Your task to perform on an android device: turn off improve location accuracy Image 0: 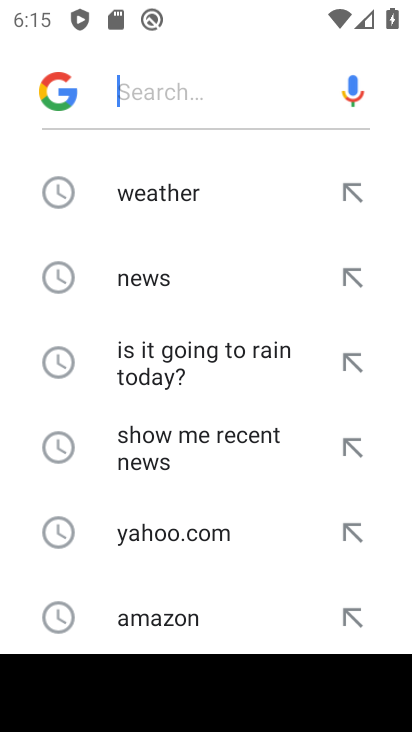
Step 0: press home button
Your task to perform on an android device: turn off improve location accuracy Image 1: 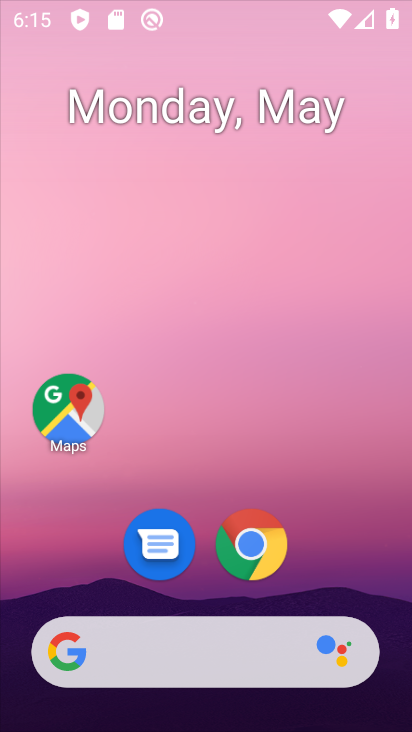
Step 1: drag from (328, 539) to (154, 16)
Your task to perform on an android device: turn off improve location accuracy Image 2: 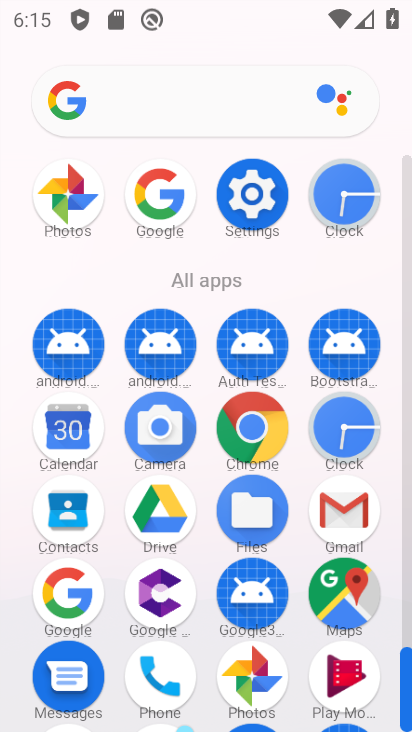
Step 2: click (268, 187)
Your task to perform on an android device: turn off improve location accuracy Image 3: 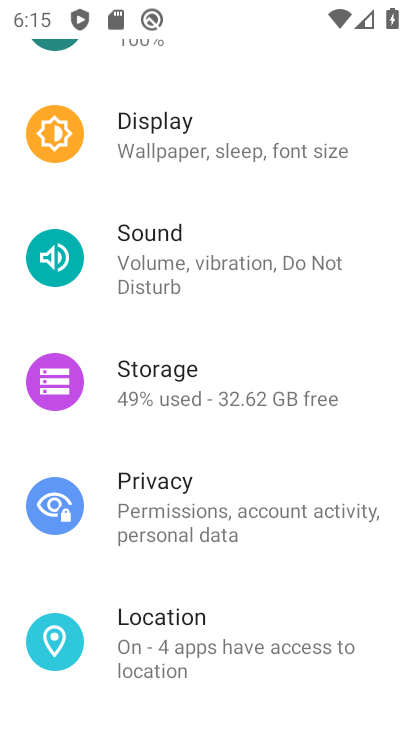
Step 3: click (258, 620)
Your task to perform on an android device: turn off improve location accuracy Image 4: 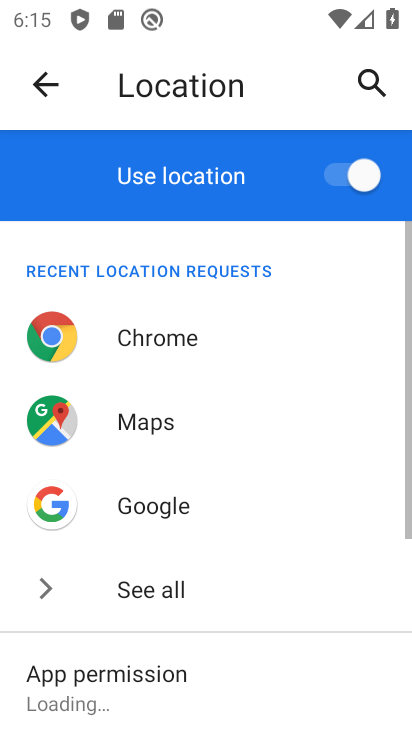
Step 4: drag from (268, 633) to (247, 89)
Your task to perform on an android device: turn off improve location accuracy Image 5: 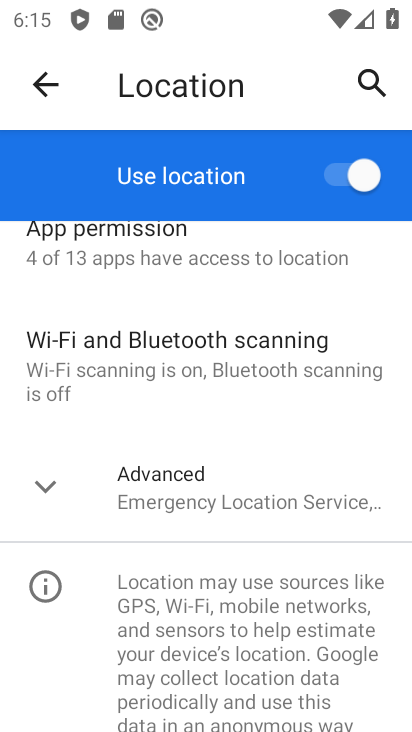
Step 5: click (239, 493)
Your task to perform on an android device: turn off improve location accuracy Image 6: 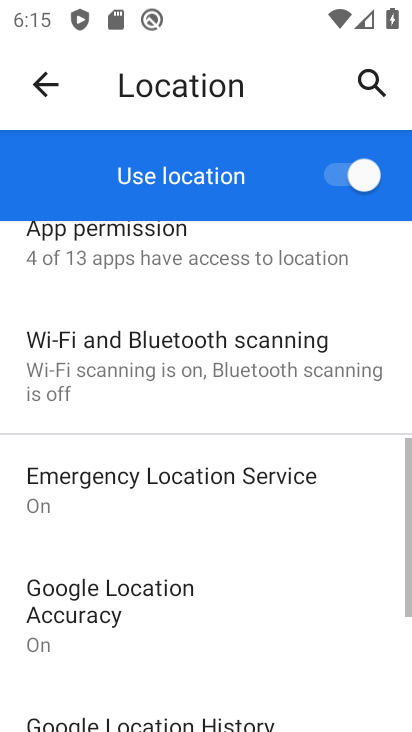
Step 6: drag from (236, 627) to (244, 387)
Your task to perform on an android device: turn off improve location accuracy Image 7: 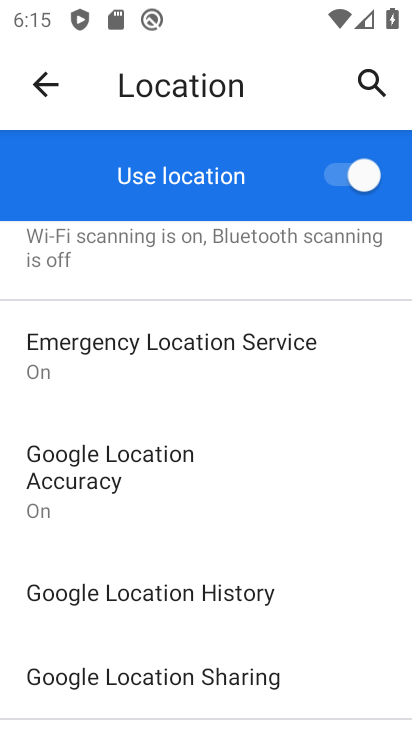
Step 7: click (194, 457)
Your task to perform on an android device: turn off improve location accuracy Image 8: 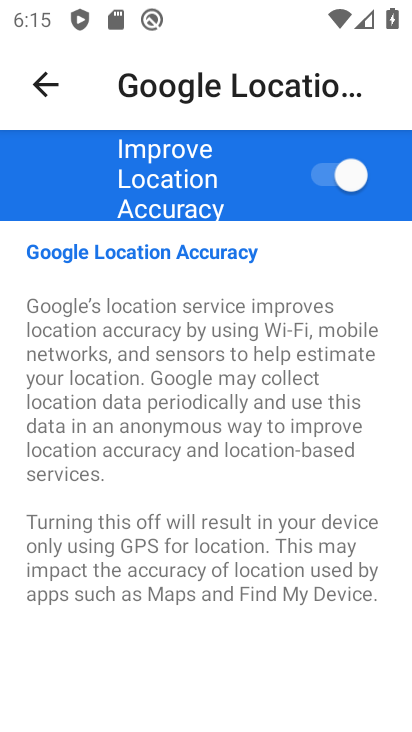
Step 8: click (331, 170)
Your task to perform on an android device: turn off improve location accuracy Image 9: 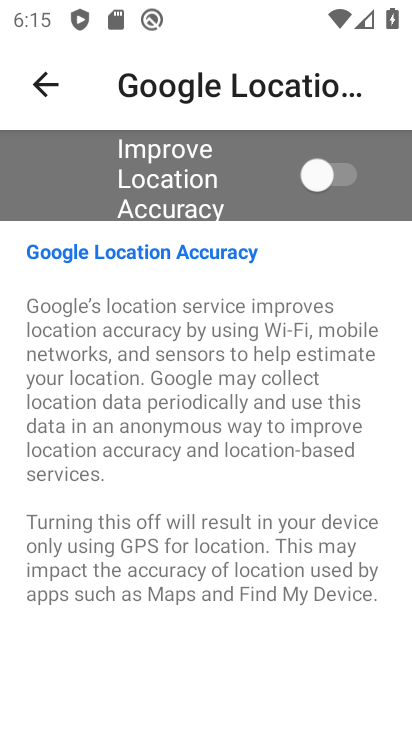
Step 9: task complete